Your task to perform on an android device: Open Yahoo.com Image 0: 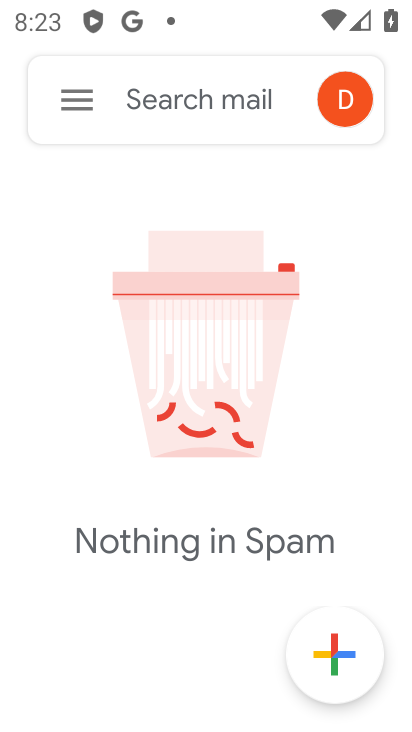
Step 0: press home button
Your task to perform on an android device: Open Yahoo.com Image 1: 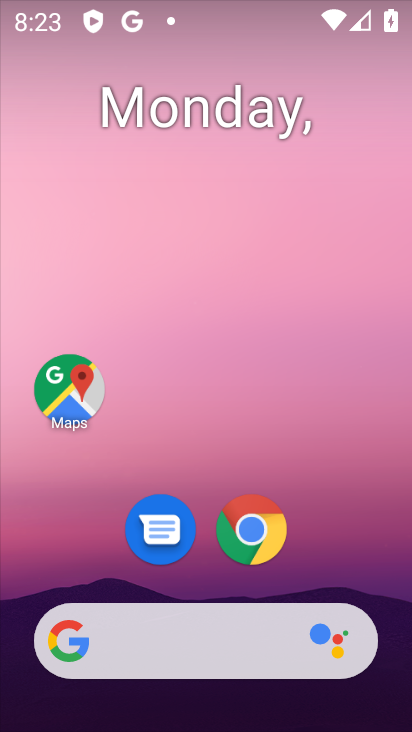
Step 1: drag from (278, 696) to (285, 262)
Your task to perform on an android device: Open Yahoo.com Image 2: 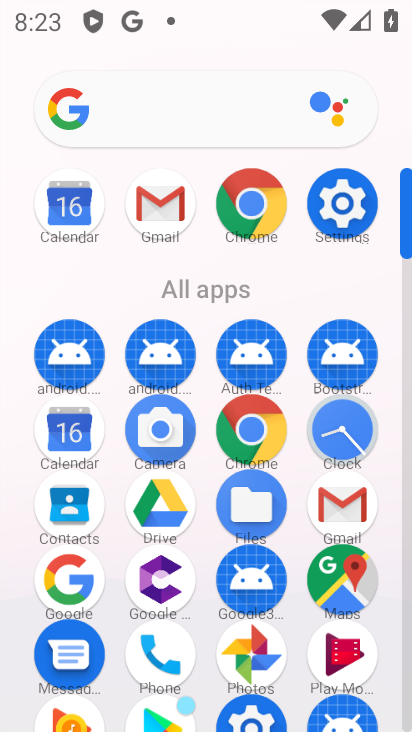
Step 2: click (257, 225)
Your task to perform on an android device: Open Yahoo.com Image 3: 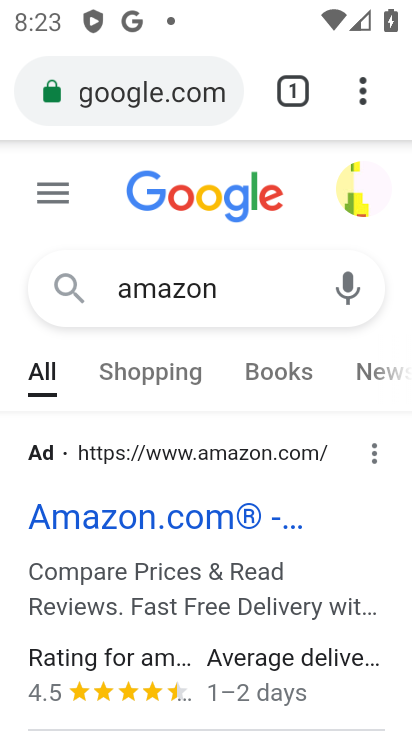
Step 3: click (300, 88)
Your task to perform on an android device: Open Yahoo.com Image 4: 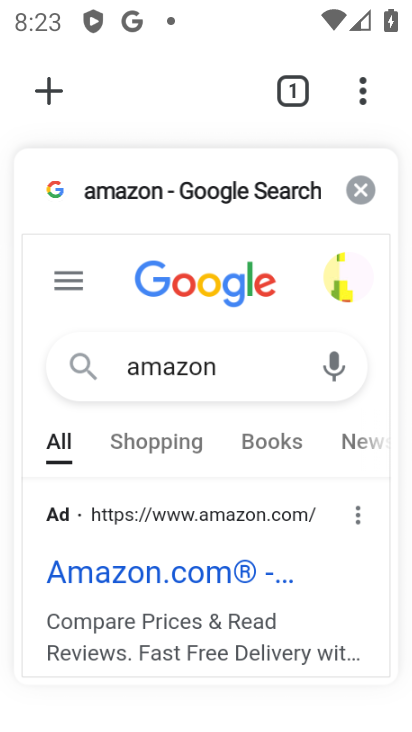
Step 4: click (37, 87)
Your task to perform on an android device: Open Yahoo.com Image 5: 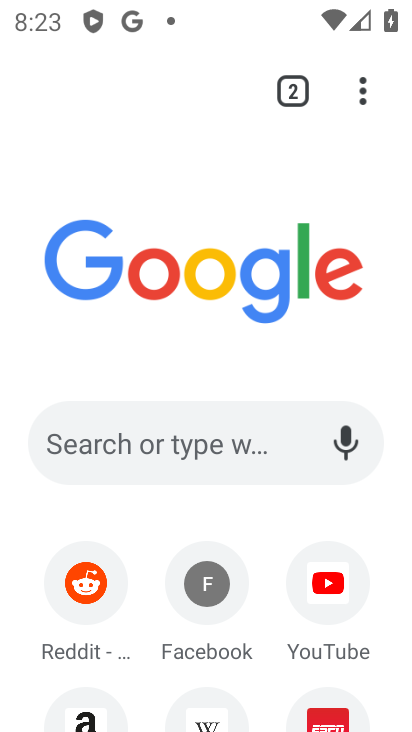
Step 5: click (184, 425)
Your task to perform on an android device: Open Yahoo.com Image 6: 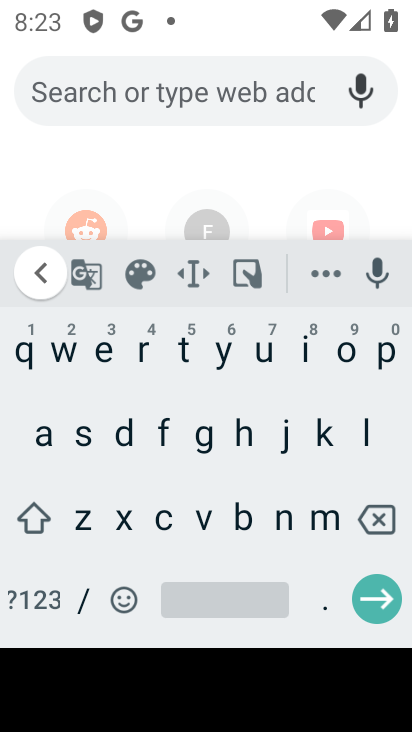
Step 6: click (225, 359)
Your task to perform on an android device: Open Yahoo.com Image 7: 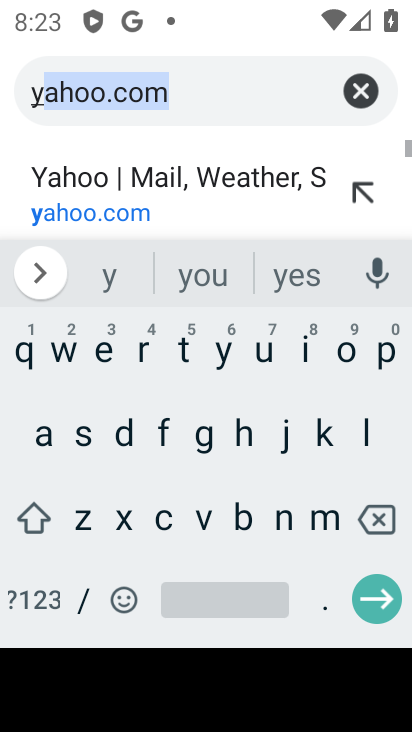
Step 7: click (42, 437)
Your task to perform on an android device: Open Yahoo.com Image 8: 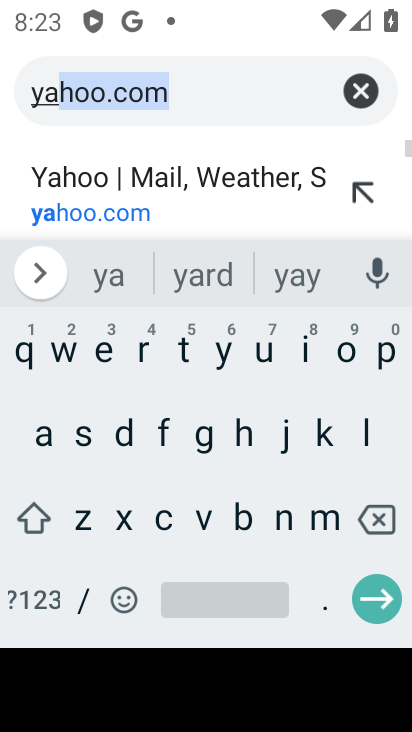
Step 8: click (211, 92)
Your task to perform on an android device: Open Yahoo.com Image 9: 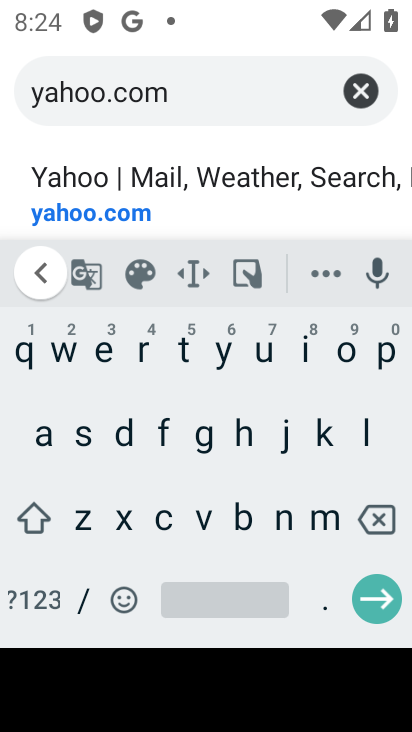
Step 9: click (377, 583)
Your task to perform on an android device: Open Yahoo.com Image 10: 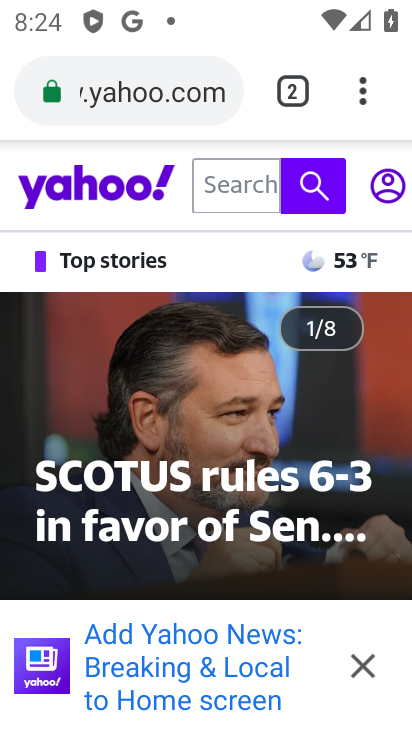
Step 10: task complete